Your task to perform on an android device: Open the web browser Image 0: 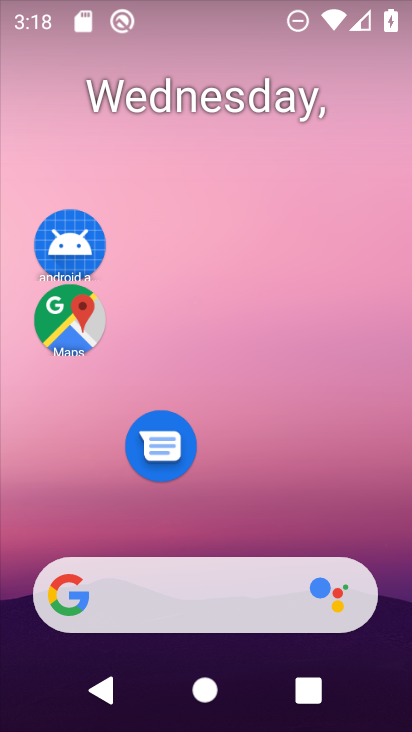
Step 0: drag from (373, 515) to (326, 192)
Your task to perform on an android device: Open the web browser Image 1: 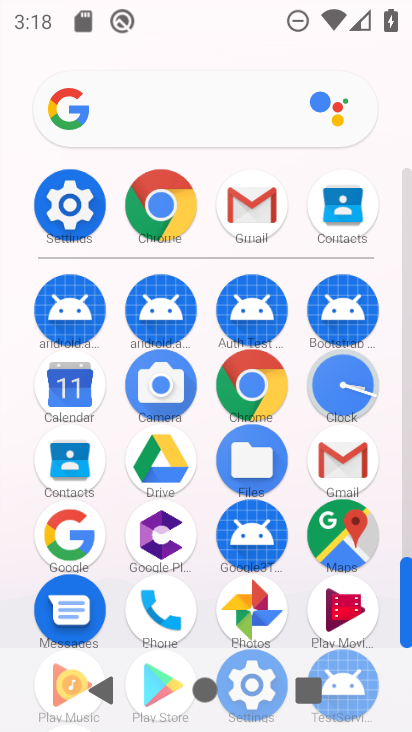
Step 1: click (166, 185)
Your task to perform on an android device: Open the web browser Image 2: 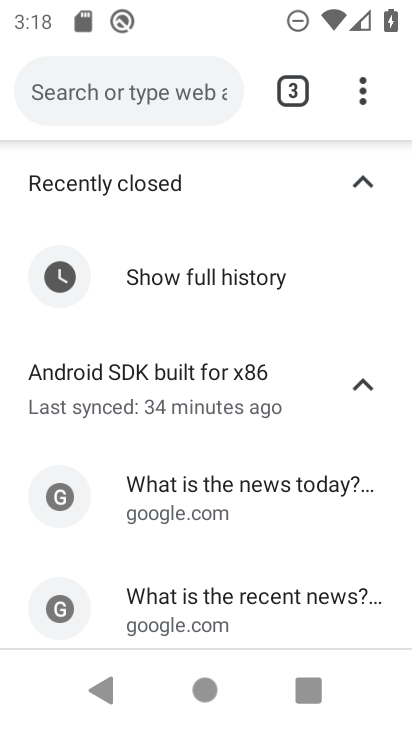
Step 2: task complete